Your task to perform on an android device: Show me recent news Image 0: 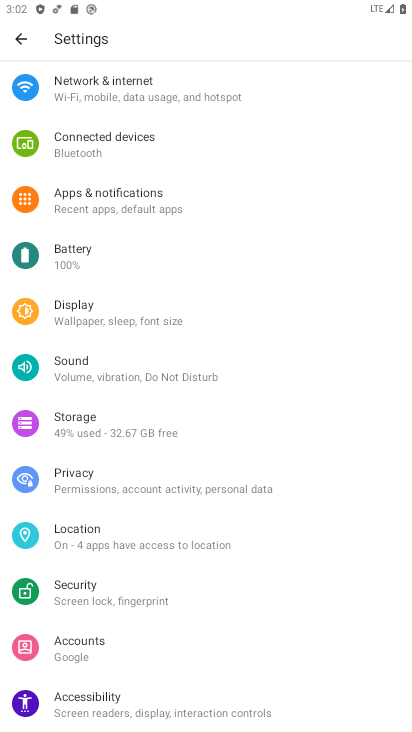
Step 0: press home button
Your task to perform on an android device: Show me recent news Image 1: 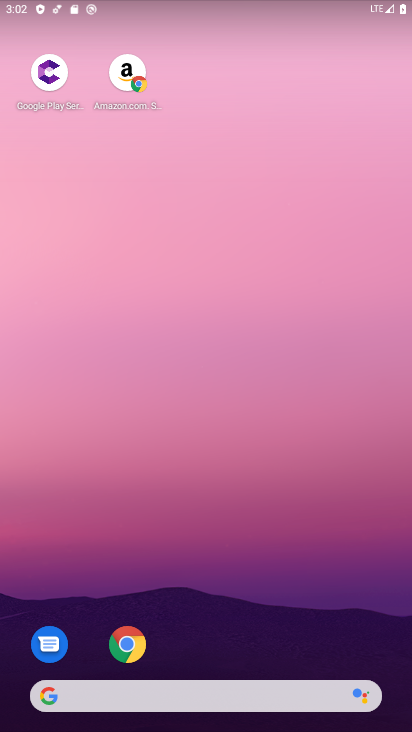
Step 1: drag from (237, 523) to (241, 121)
Your task to perform on an android device: Show me recent news Image 2: 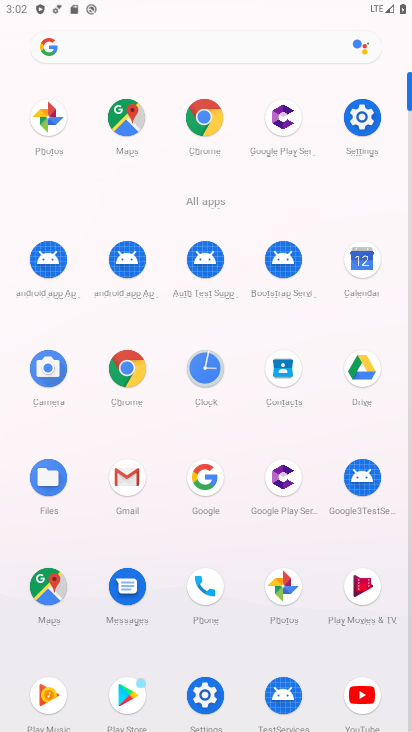
Step 2: click (122, 366)
Your task to perform on an android device: Show me recent news Image 3: 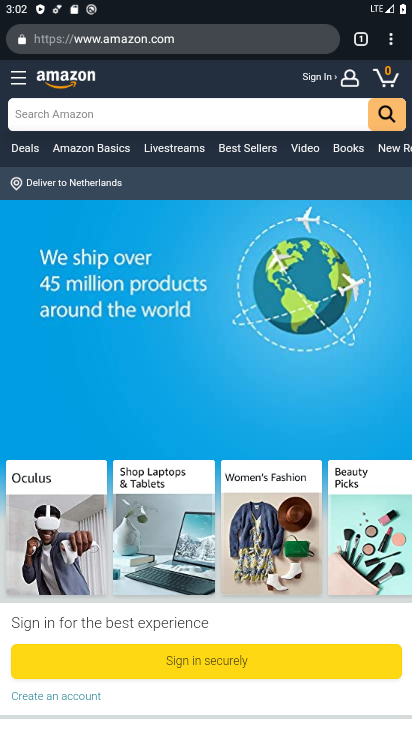
Step 3: task complete